Your task to perform on an android device: add a contact in the contacts app Image 0: 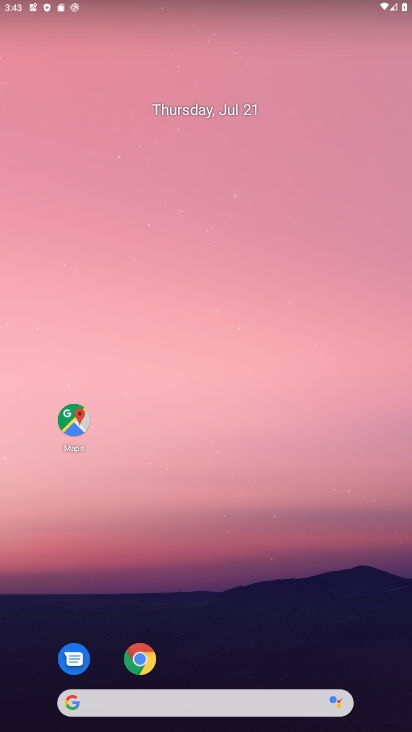
Step 0: drag from (269, 639) to (141, 35)
Your task to perform on an android device: add a contact in the contacts app Image 1: 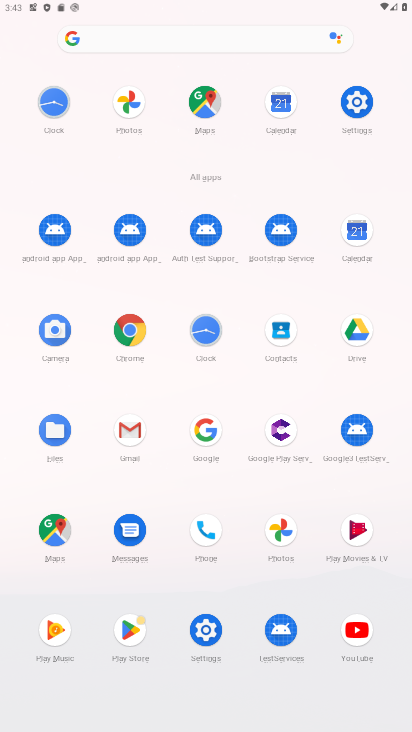
Step 1: click (273, 322)
Your task to perform on an android device: add a contact in the contacts app Image 2: 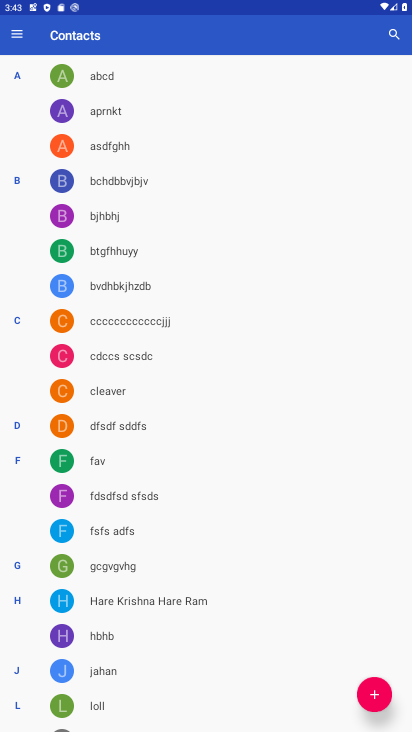
Step 2: click (375, 698)
Your task to perform on an android device: add a contact in the contacts app Image 3: 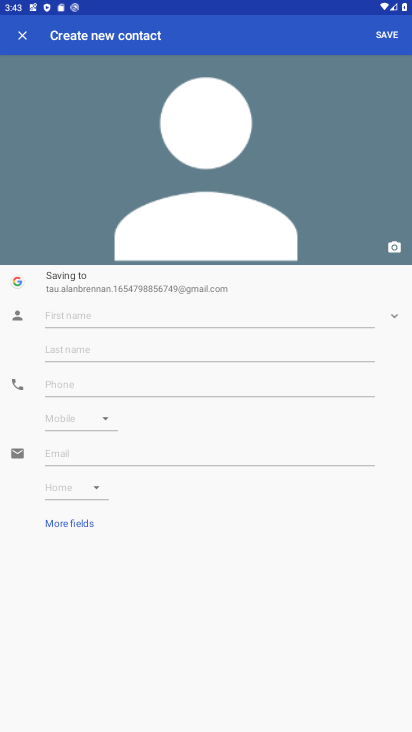
Step 3: click (188, 315)
Your task to perform on an android device: add a contact in the contacts app Image 4: 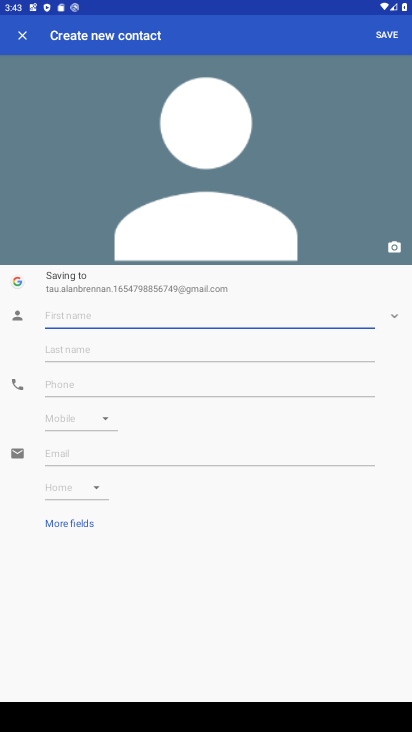
Step 4: type "ghg"
Your task to perform on an android device: add a contact in the contacts app Image 5: 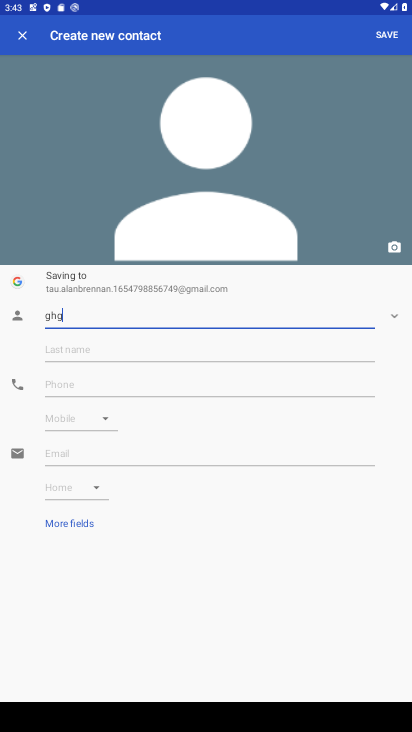
Step 5: click (104, 390)
Your task to perform on an android device: add a contact in the contacts app Image 6: 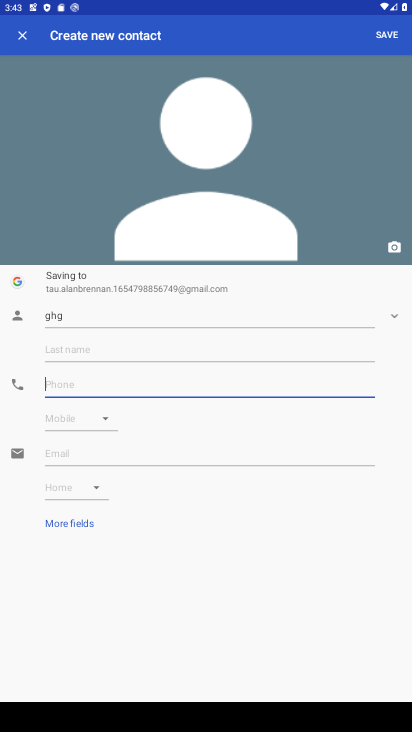
Step 6: type "098789878"
Your task to perform on an android device: add a contact in the contacts app Image 7: 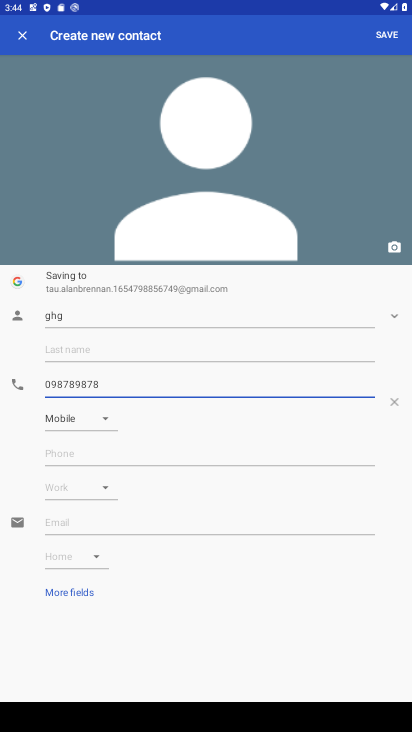
Step 7: click (387, 33)
Your task to perform on an android device: add a contact in the contacts app Image 8: 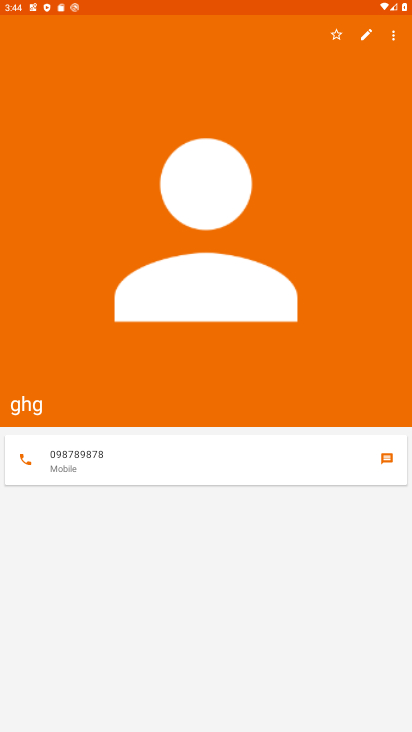
Step 8: task complete